Your task to perform on an android device: Open Google Image 0: 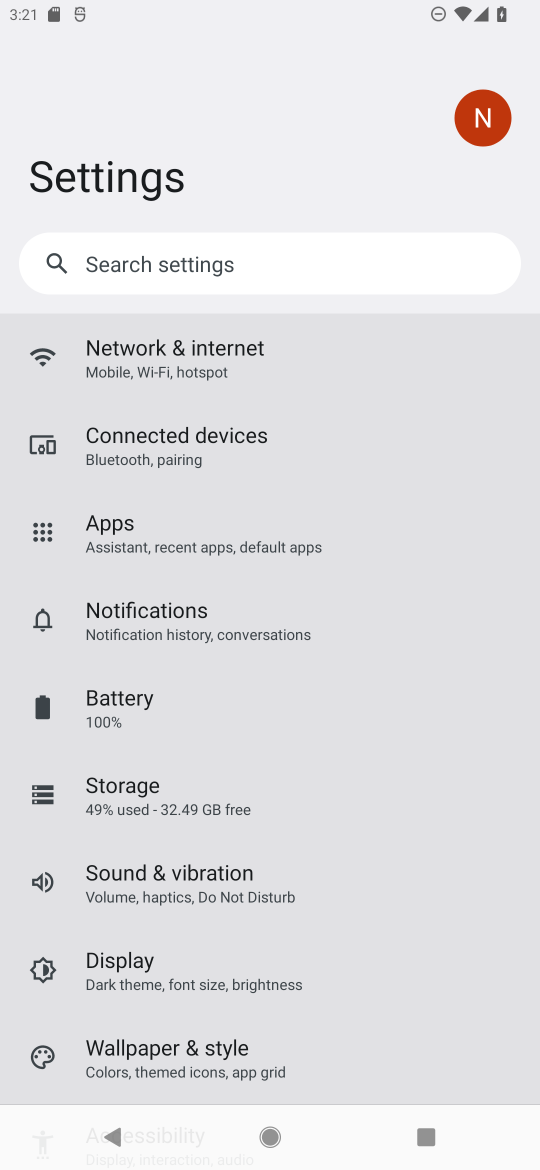
Step 0: press home button
Your task to perform on an android device: Open Google Image 1: 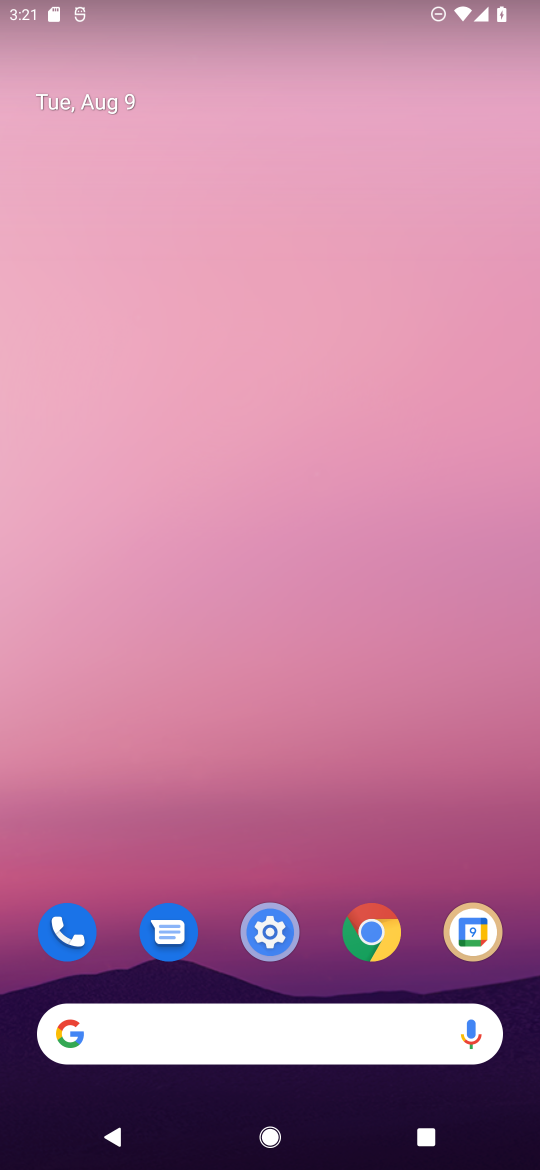
Step 1: click (177, 1037)
Your task to perform on an android device: Open Google Image 2: 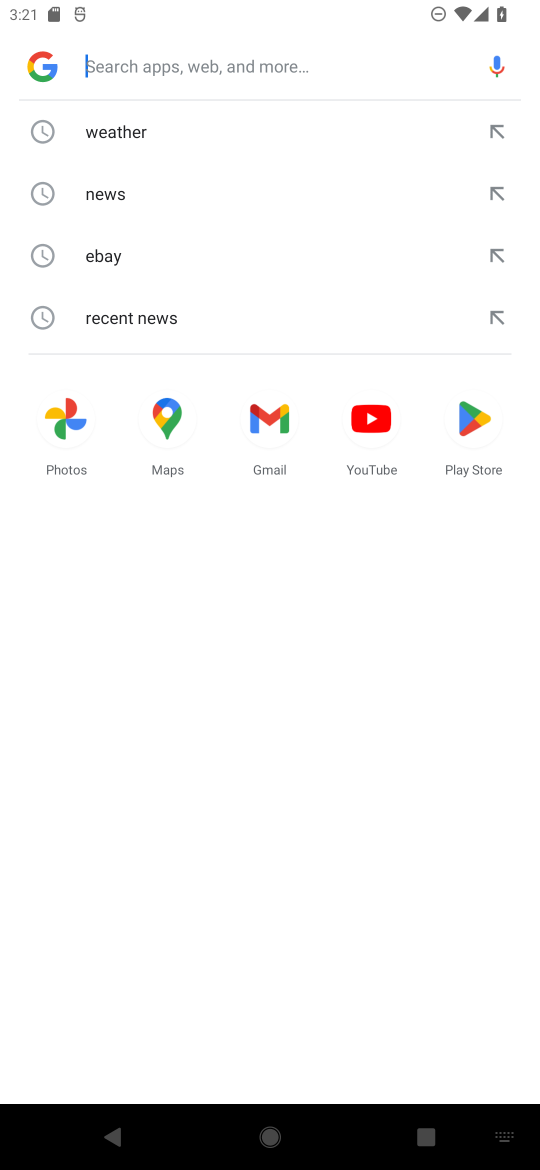
Step 2: task complete